Your task to perform on an android device: open a bookmark in the chrome app Image 0: 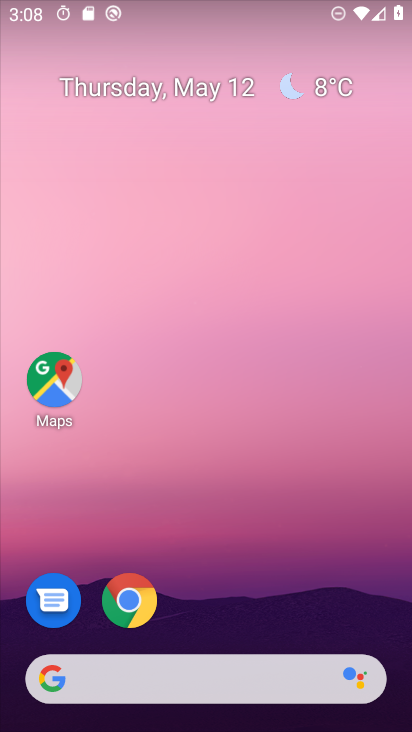
Step 0: click (131, 597)
Your task to perform on an android device: open a bookmark in the chrome app Image 1: 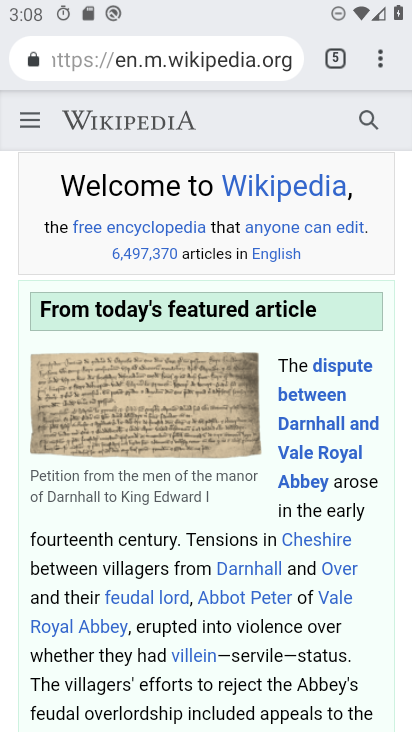
Step 1: click (379, 63)
Your task to perform on an android device: open a bookmark in the chrome app Image 2: 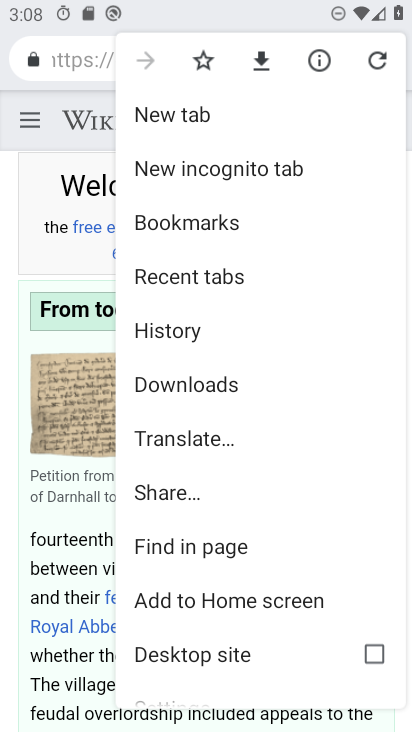
Step 2: click (182, 219)
Your task to perform on an android device: open a bookmark in the chrome app Image 3: 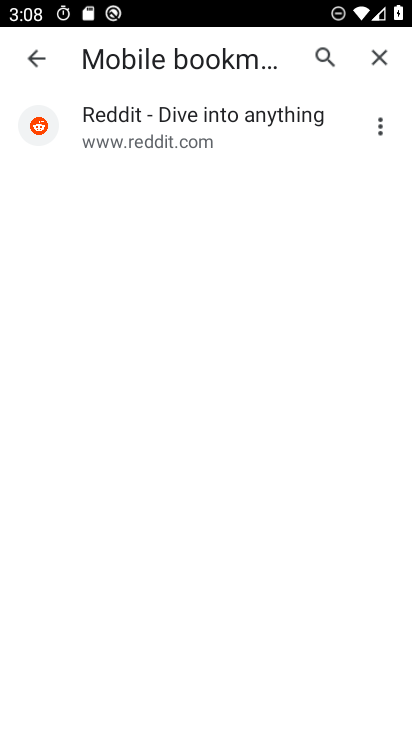
Step 3: task complete